Your task to perform on an android device: Show me popular games on the Play Store Image 0: 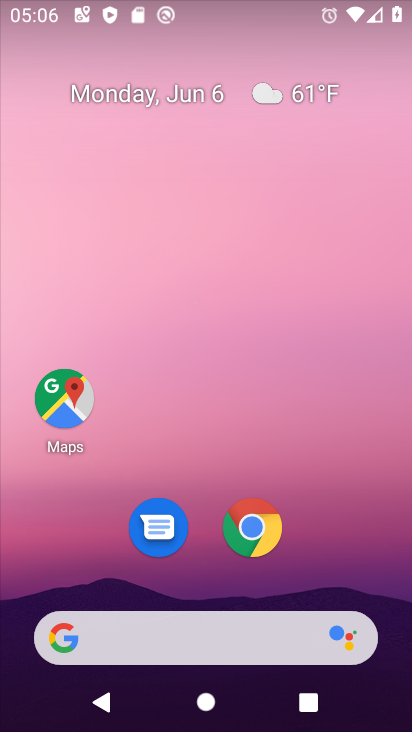
Step 0: drag from (386, 660) to (327, 162)
Your task to perform on an android device: Show me popular games on the Play Store Image 1: 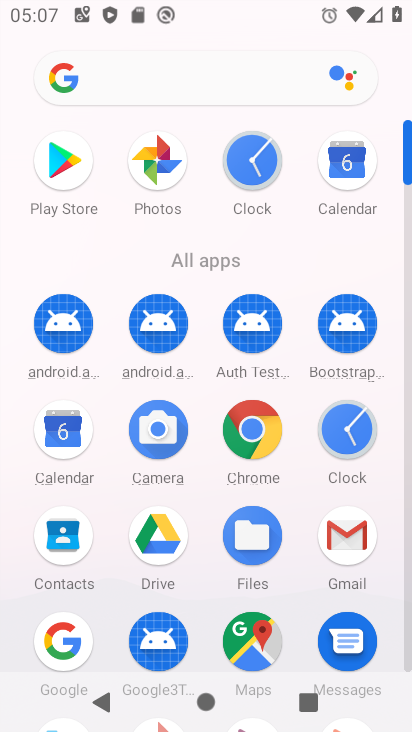
Step 1: drag from (104, 651) to (104, 238)
Your task to perform on an android device: Show me popular games on the Play Store Image 2: 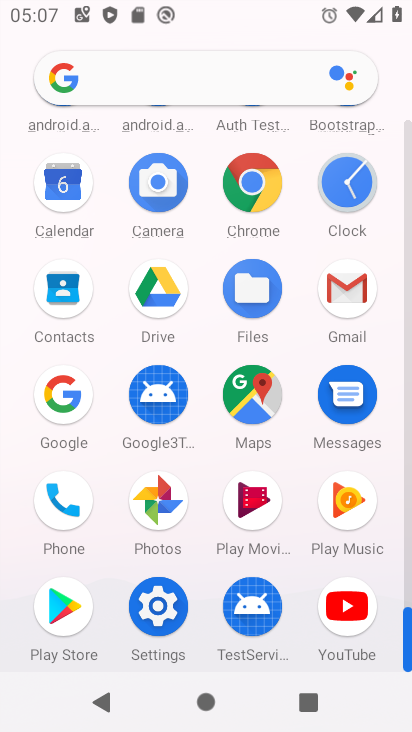
Step 2: click (68, 604)
Your task to perform on an android device: Show me popular games on the Play Store Image 3: 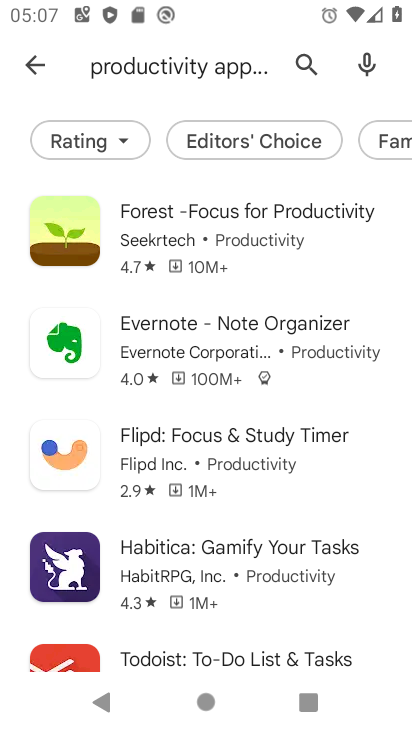
Step 3: click (297, 62)
Your task to perform on an android device: Show me popular games on the Play Store Image 4: 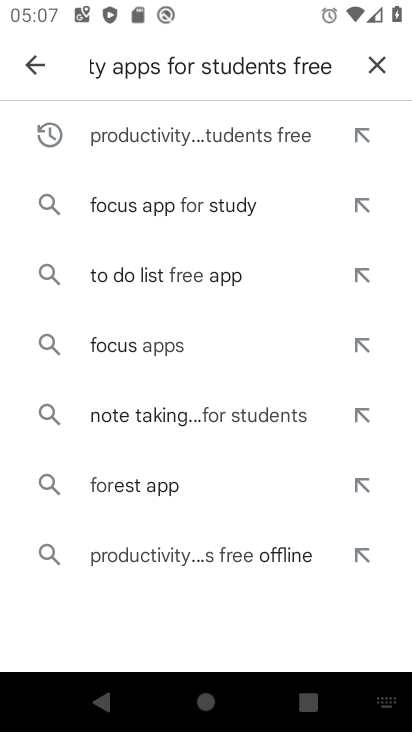
Step 4: click (371, 59)
Your task to perform on an android device: Show me popular games on the Play Store Image 5: 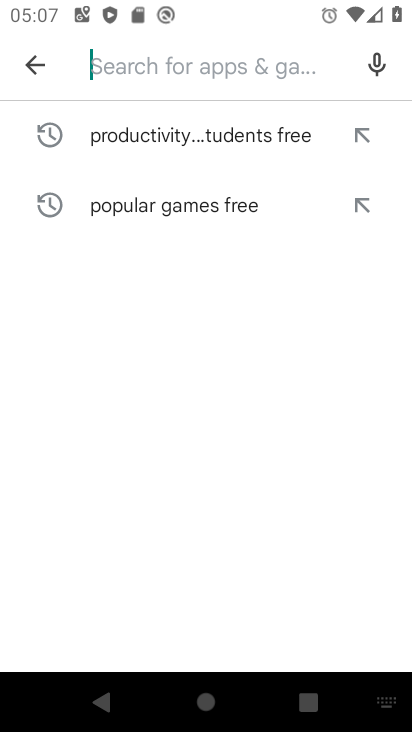
Step 5: type "popular games"
Your task to perform on an android device: Show me popular games on the Play Store Image 6: 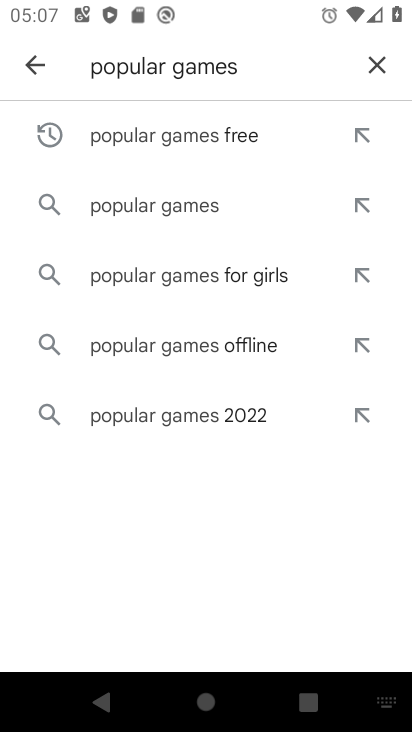
Step 6: click (153, 203)
Your task to perform on an android device: Show me popular games on the Play Store Image 7: 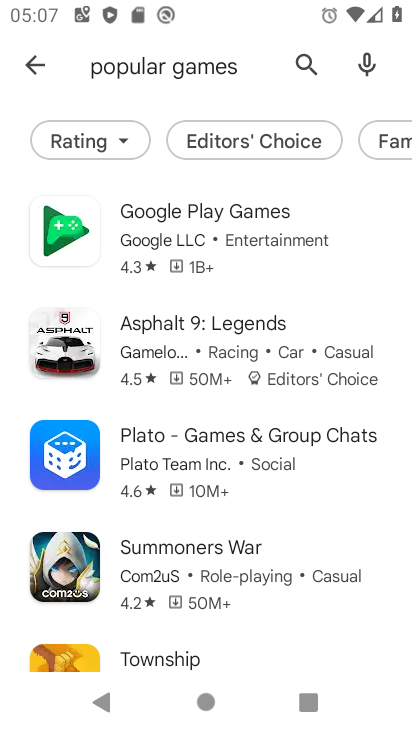
Step 7: task complete